Your task to perform on an android device: open app "Adobe Express: Graphic Design" (install if not already installed) and enter user name: "deliveries@gmail.com" and password: "regimentation" Image 0: 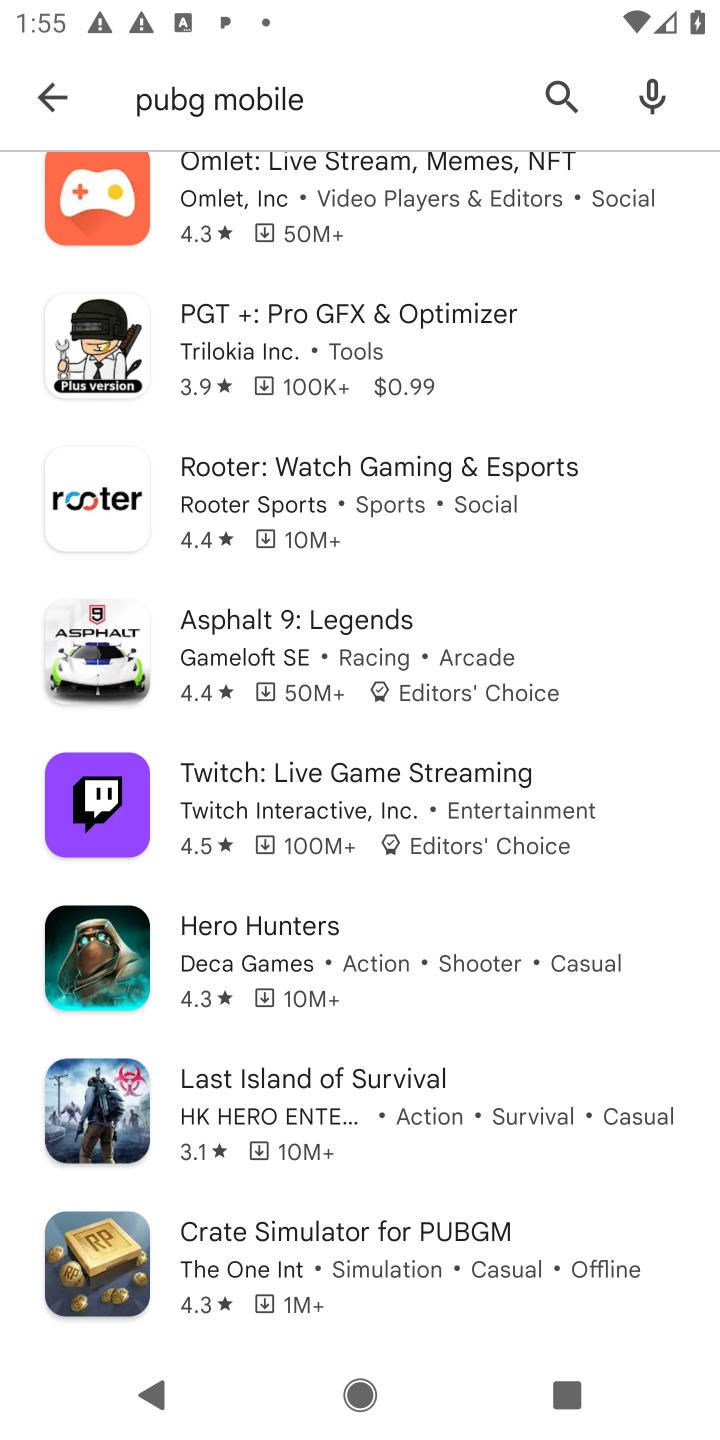
Step 0: press home button
Your task to perform on an android device: open app "Adobe Express: Graphic Design" (install if not already installed) and enter user name: "deliveries@gmail.com" and password: "regimentation" Image 1: 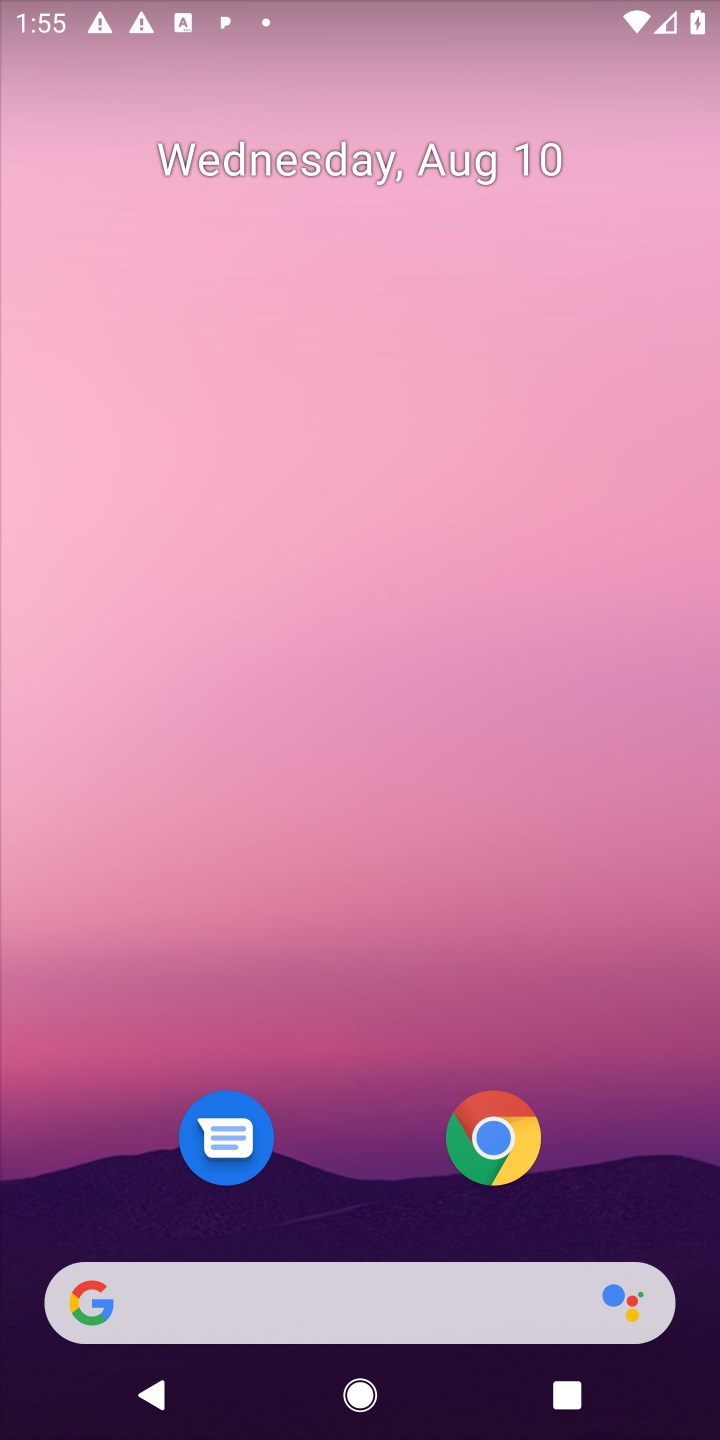
Step 1: drag from (628, 1084) to (655, 95)
Your task to perform on an android device: open app "Adobe Express: Graphic Design" (install if not already installed) and enter user name: "deliveries@gmail.com" and password: "regimentation" Image 2: 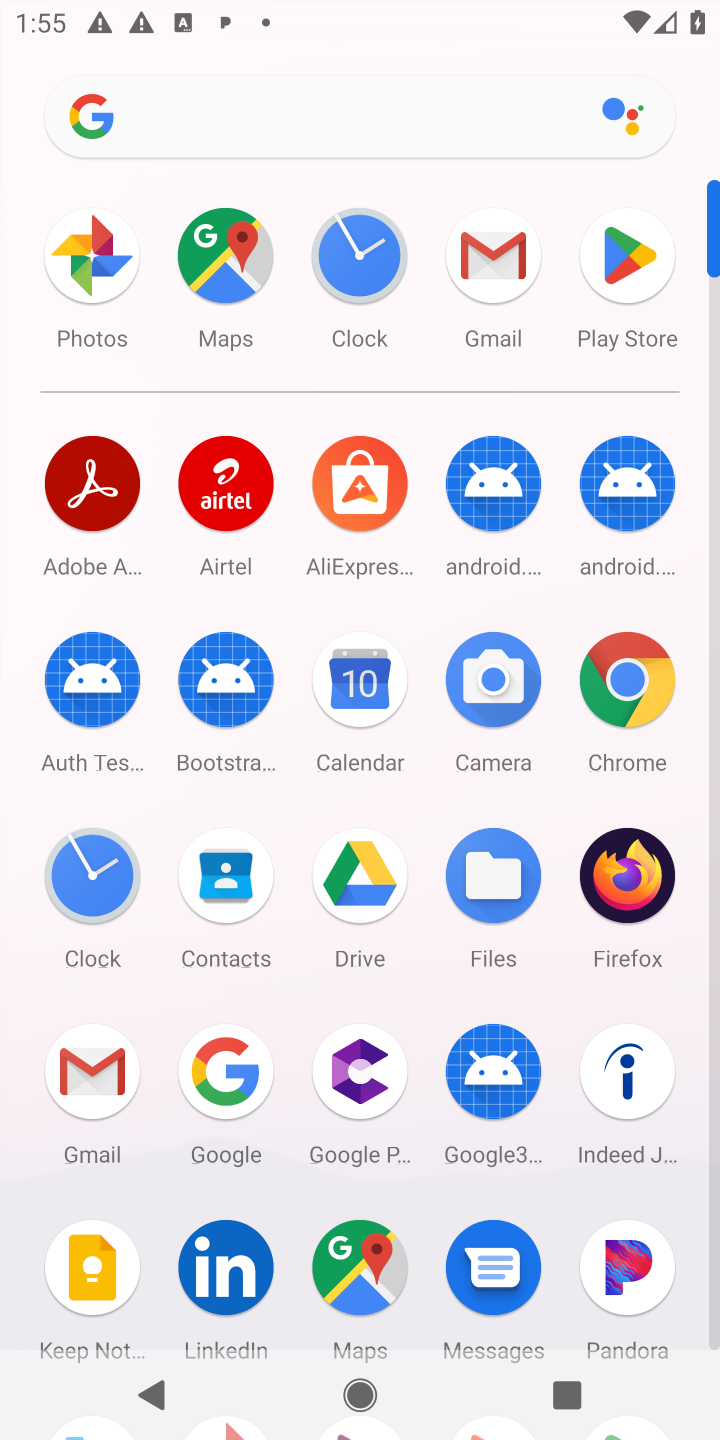
Step 2: click (608, 260)
Your task to perform on an android device: open app "Adobe Express: Graphic Design" (install if not already installed) and enter user name: "deliveries@gmail.com" and password: "regimentation" Image 3: 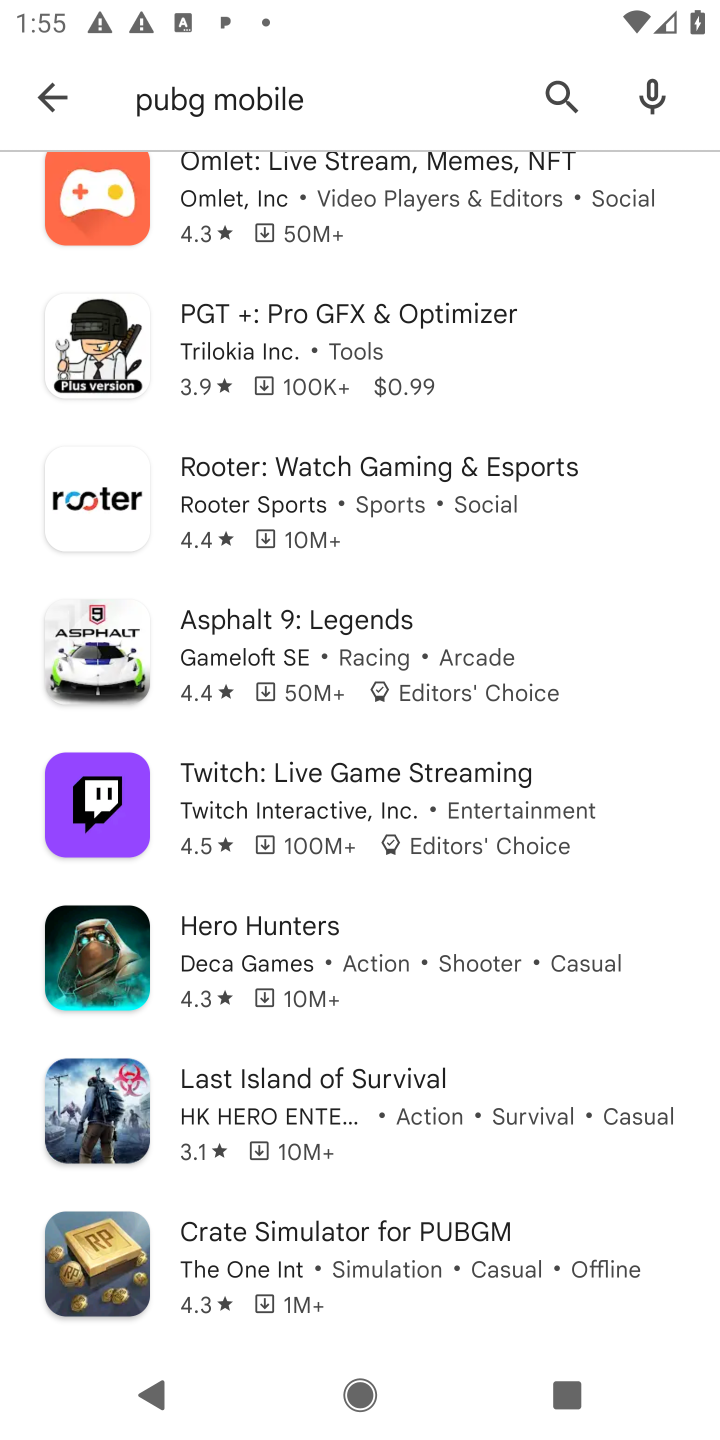
Step 3: click (555, 86)
Your task to perform on an android device: open app "Adobe Express: Graphic Design" (install if not already installed) and enter user name: "deliveries@gmail.com" and password: "regimentation" Image 4: 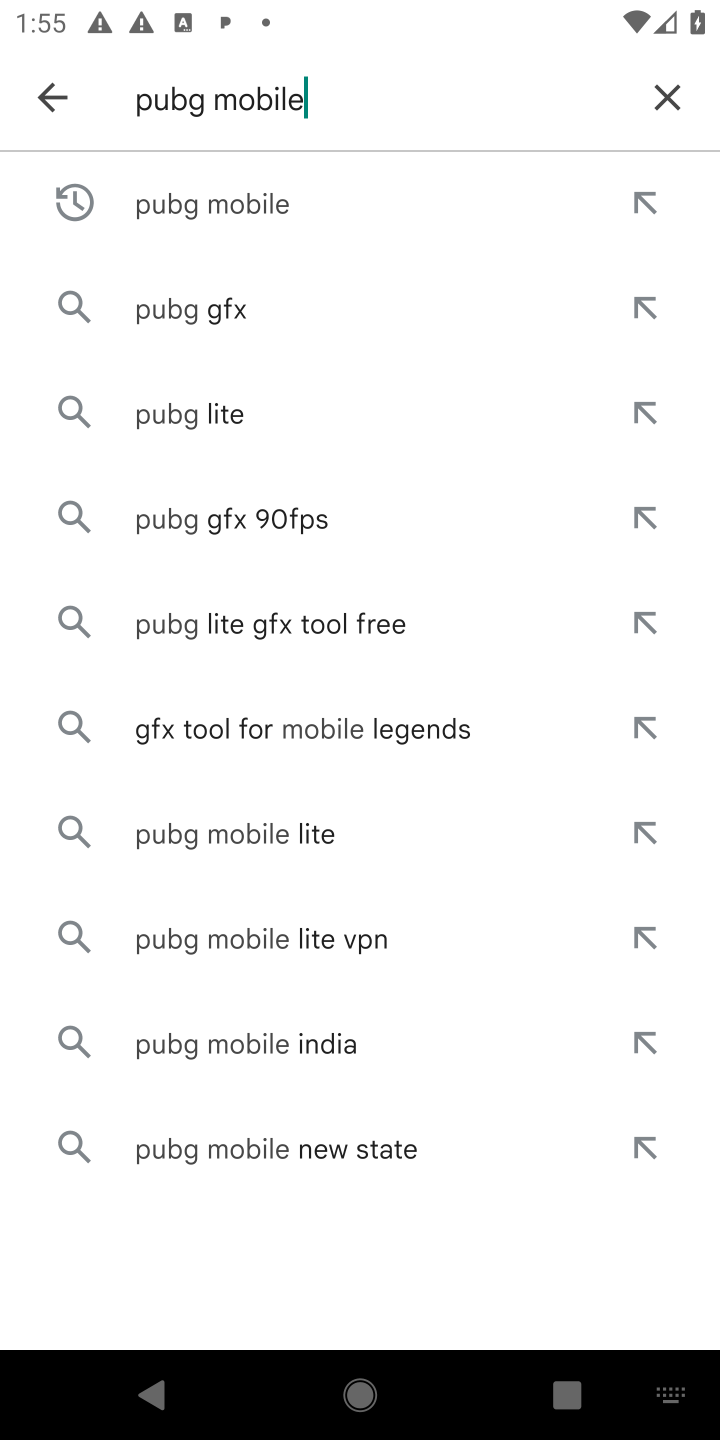
Step 4: click (676, 111)
Your task to perform on an android device: open app "Adobe Express: Graphic Design" (install if not already installed) and enter user name: "deliveries@gmail.com" and password: "regimentation" Image 5: 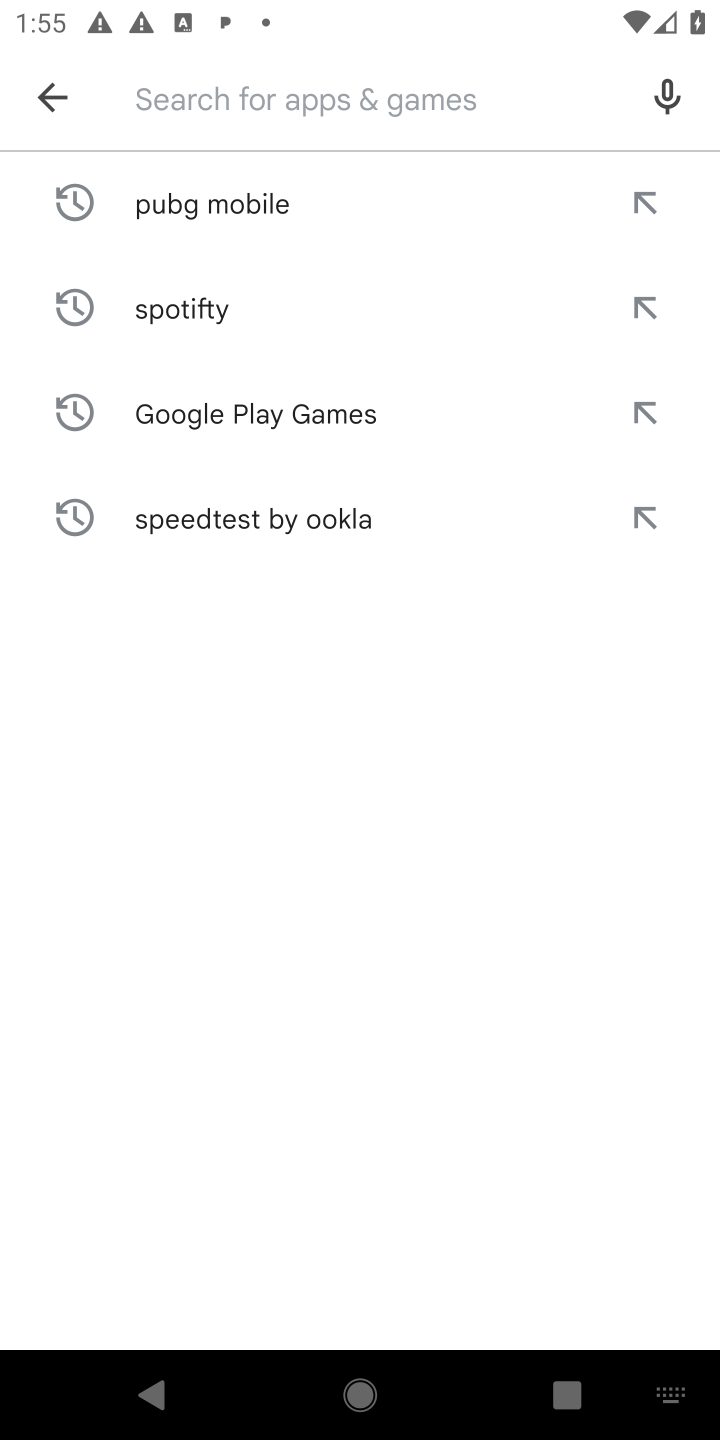
Step 5: press enter
Your task to perform on an android device: open app "Adobe Express: Graphic Design" (install if not already installed) and enter user name: "deliveries@gmail.com" and password: "regimentation" Image 6: 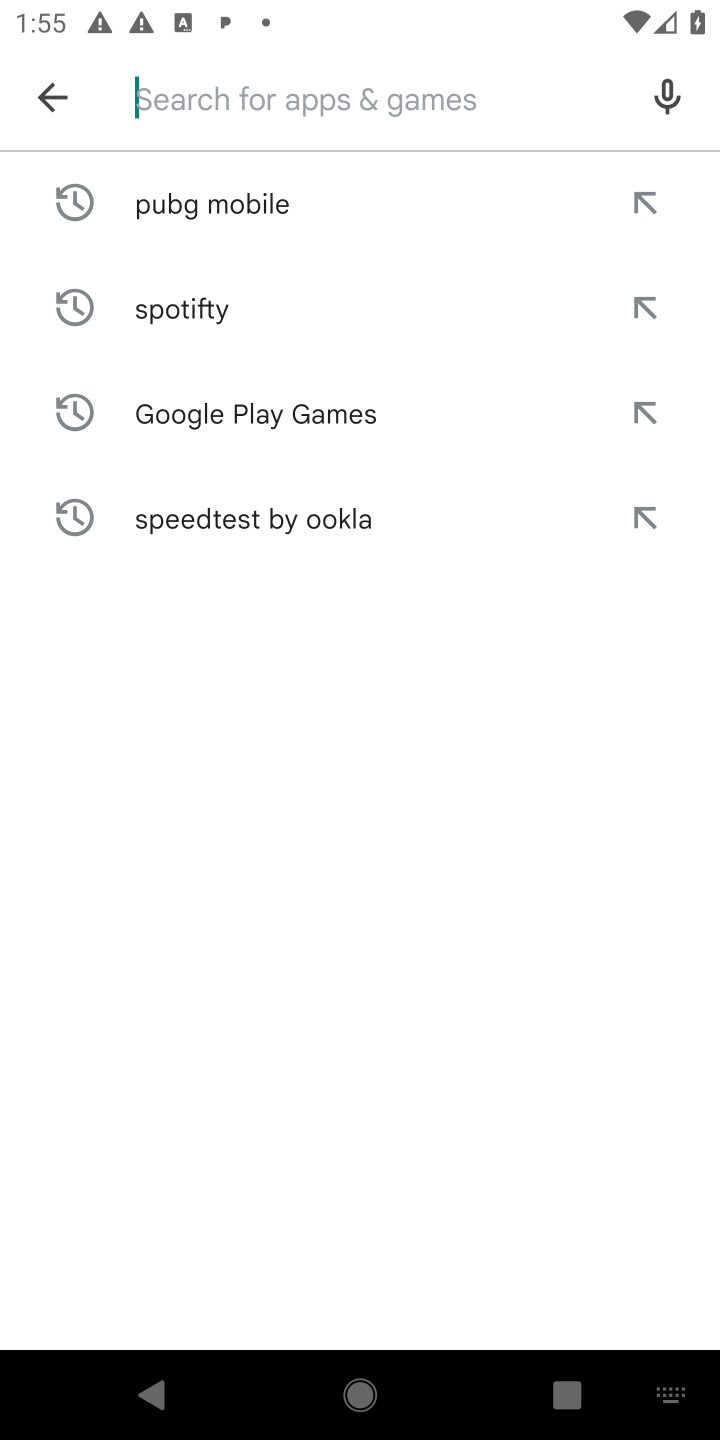
Step 6: type "Adobe Express: Graphic Design"
Your task to perform on an android device: open app "Adobe Express: Graphic Design" (install if not already installed) and enter user name: "deliveries@gmail.com" and password: "regimentation" Image 7: 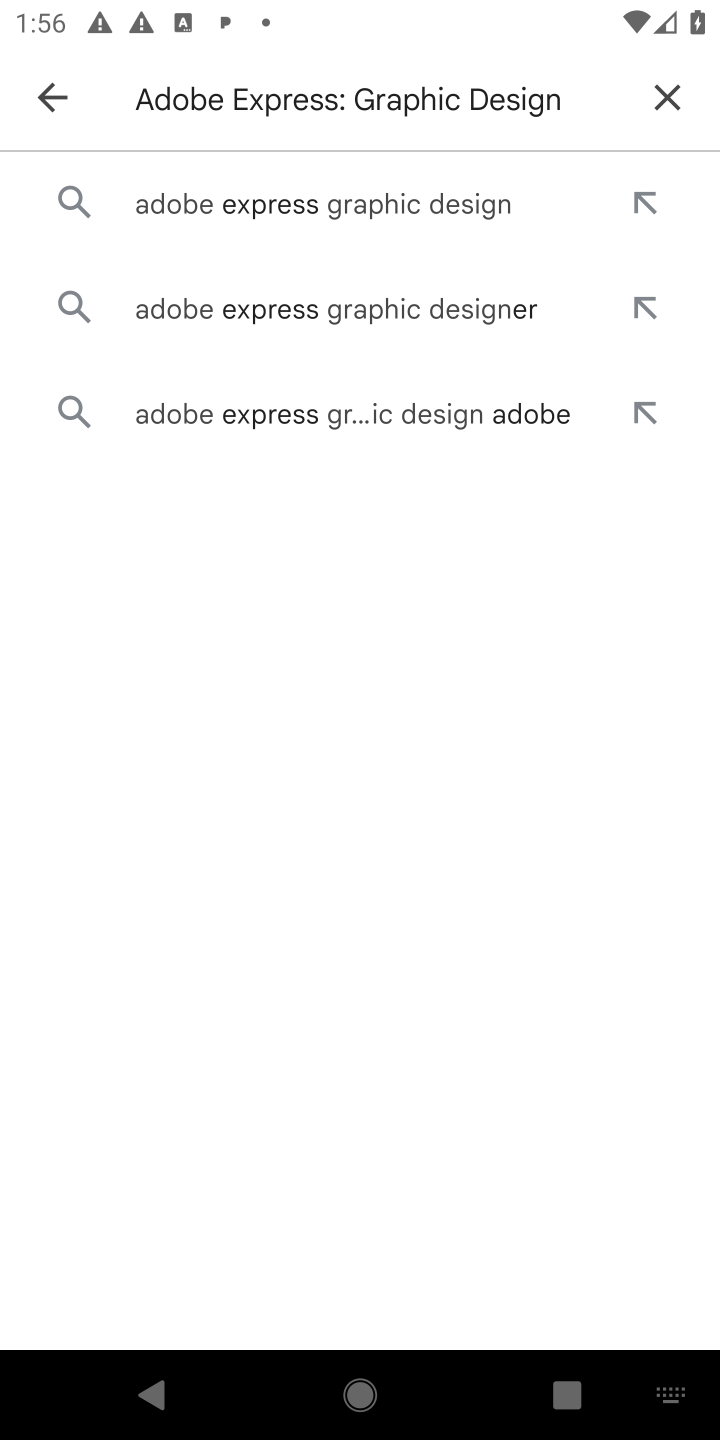
Step 7: click (414, 205)
Your task to perform on an android device: open app "Adobe Express: Graphic Design" (install if not already installed) and enter user name: "deliveries@gmail.com" and password: "regimentation" Image 8: 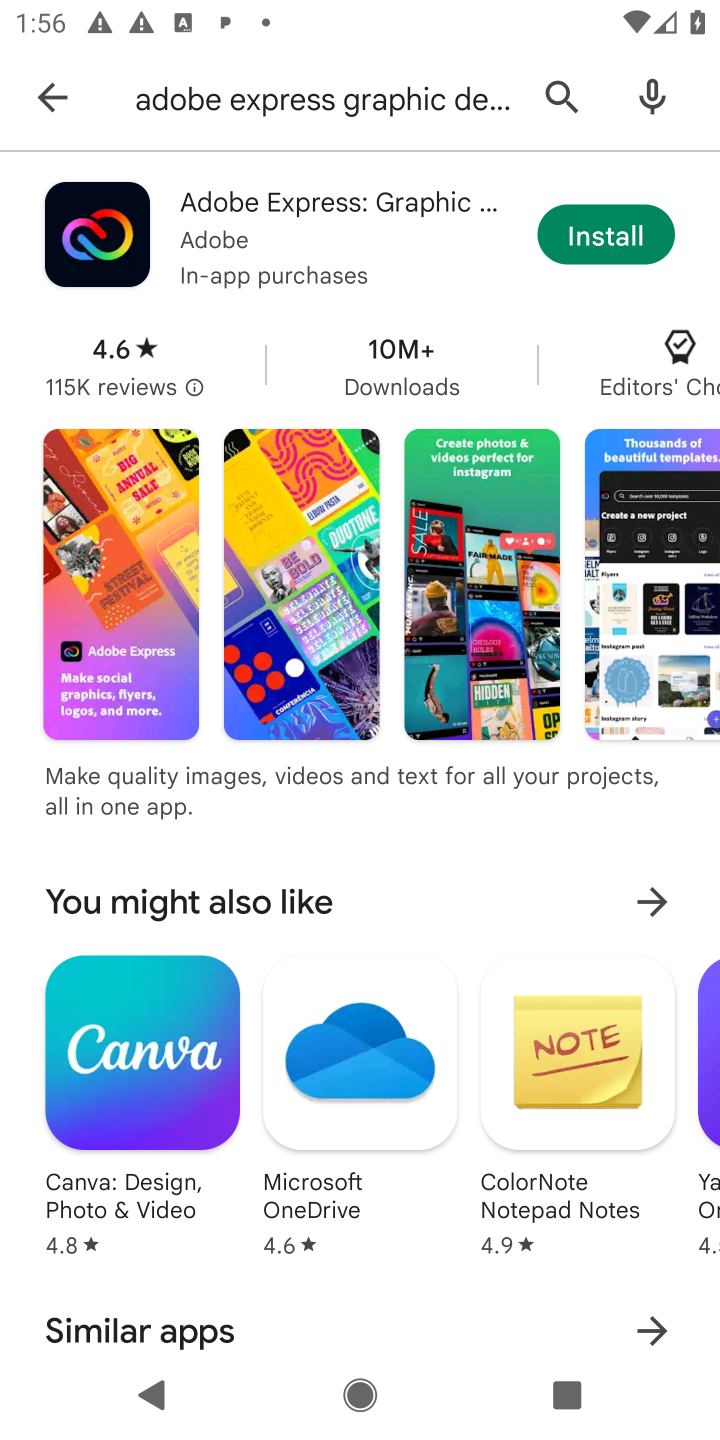
Step 8: click (619, 230)
Your task to perform on an android device: open app "Adobe Express: Graphic Design" (install if not already installed) and enter user name: "deliveries@gmail.com" and password: "regimentation" Image 9: 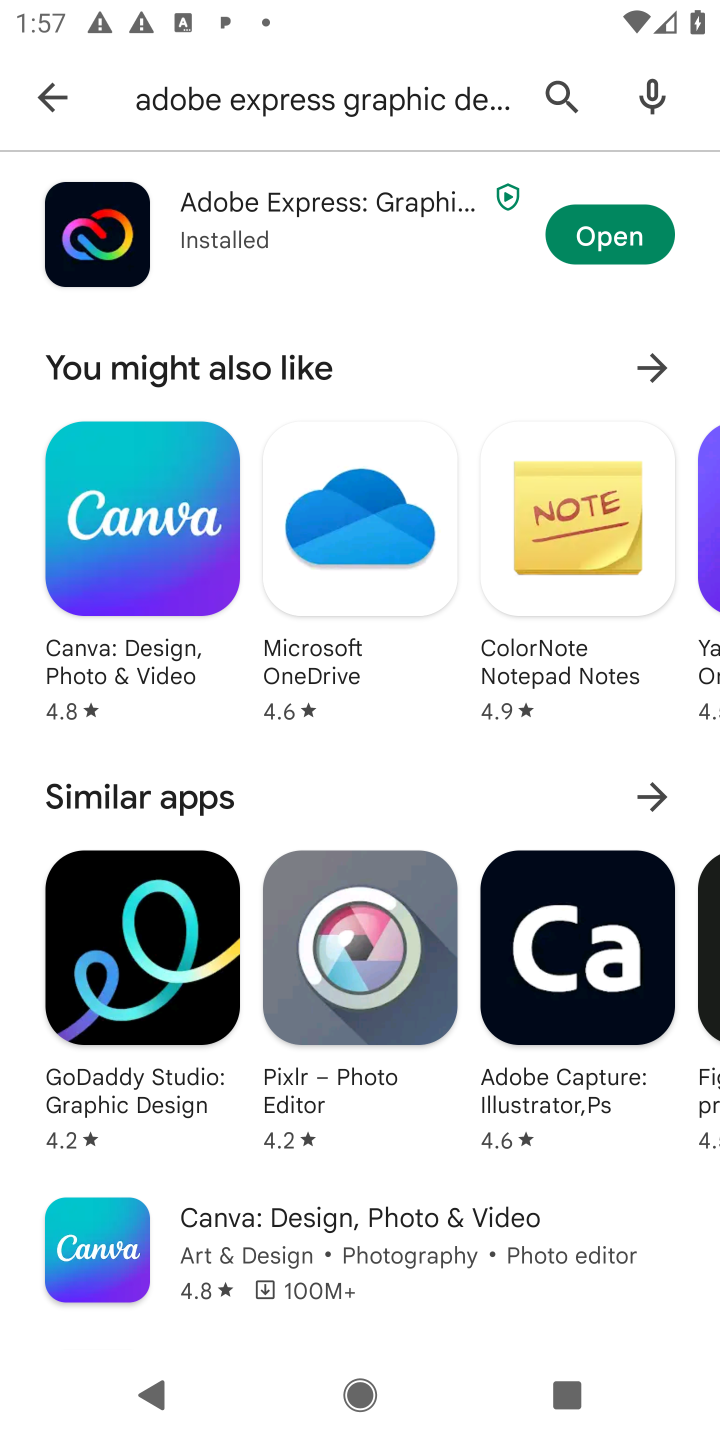
Step 9: click (626, 235)
Your task to perform on an android device: open app "Adobe Express: Graphic Design" (install if not already installed) and enter user name: "deliveries@gmail.com" and password: "regimentation" Image 10: 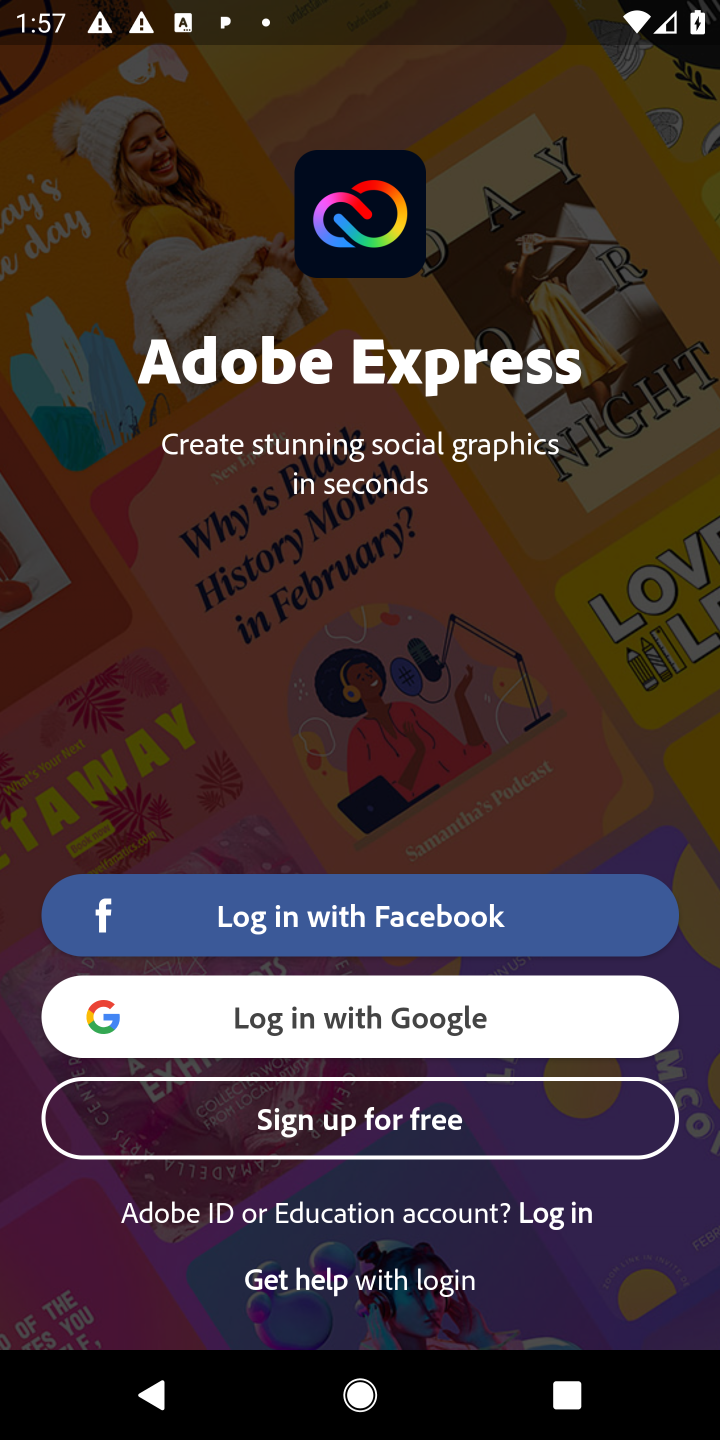
Step 10: click (566, 1217)
Your task to perform on an android device: open app "Adobe Express: Graphic Design" (install if not already installed) and enter user name: "deliveries@gmail.com" and password: "regimentation" Image 11: 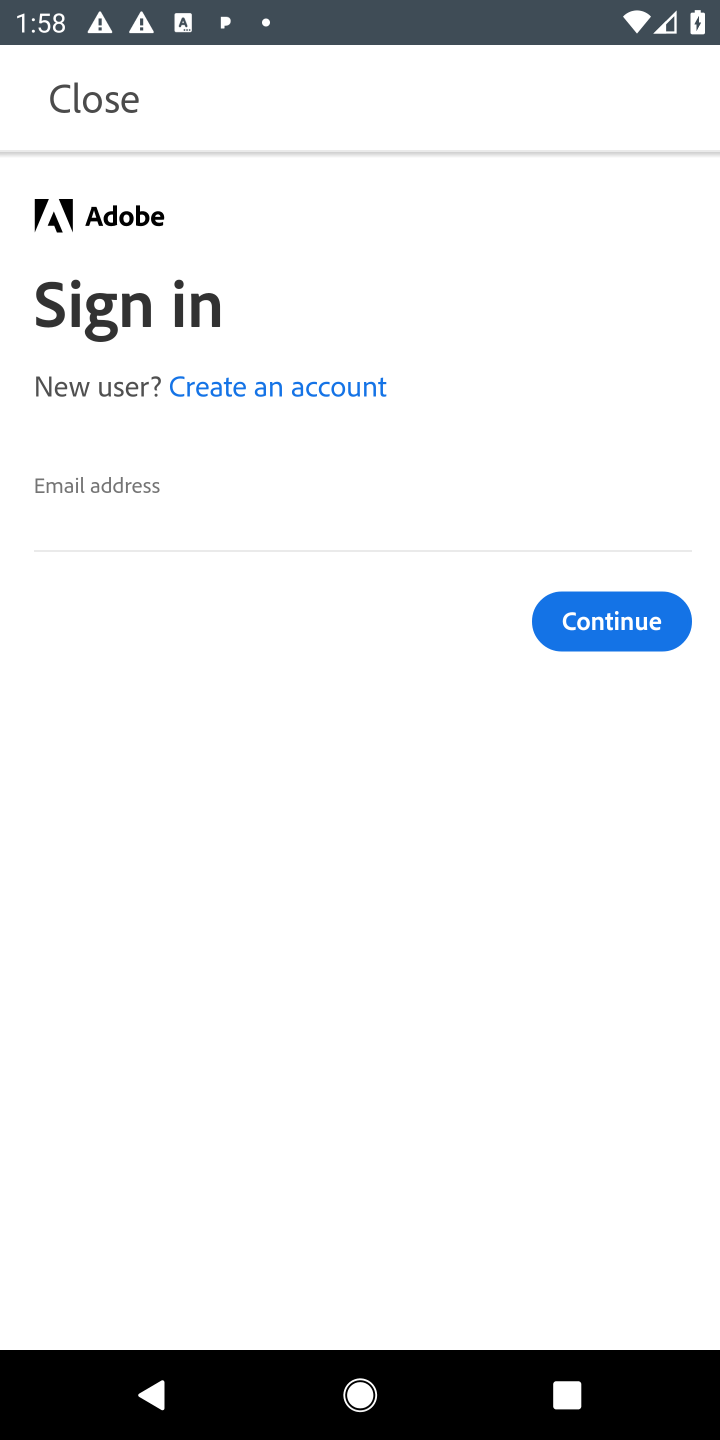
Step 11: click (194, 474)
Your task to perform on an android device: open app "Adobe Express: Graphic Design" (install if not already installed) and enter user name: "deliveries@gmail.com" and password: "regimentation" Image 12: 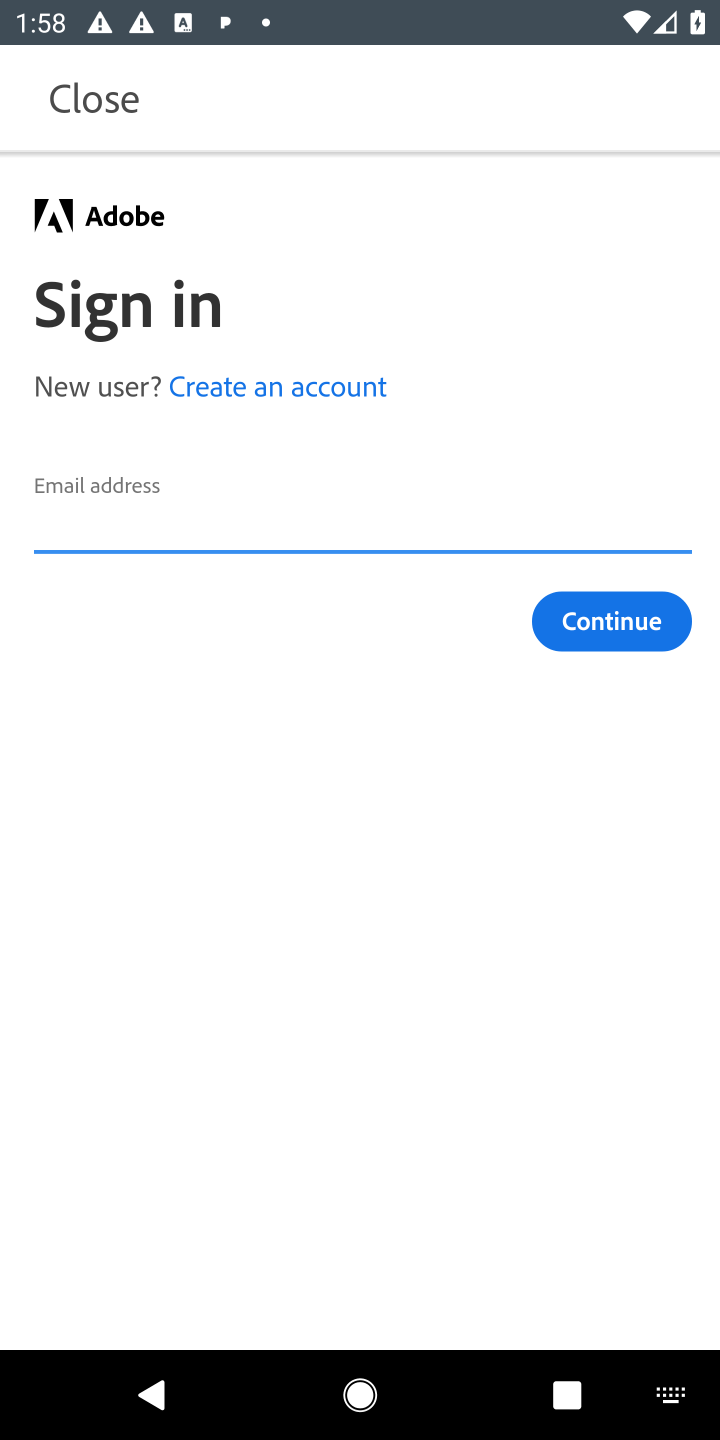
Step 12: type "deliveries@gmail.com"
Your task to perform on an android device: open app "Adobe Express: Graphic Design" (install if not already installed) and enter user name: "deliveries@gmail.com" and password: "regimentation" Image 13: 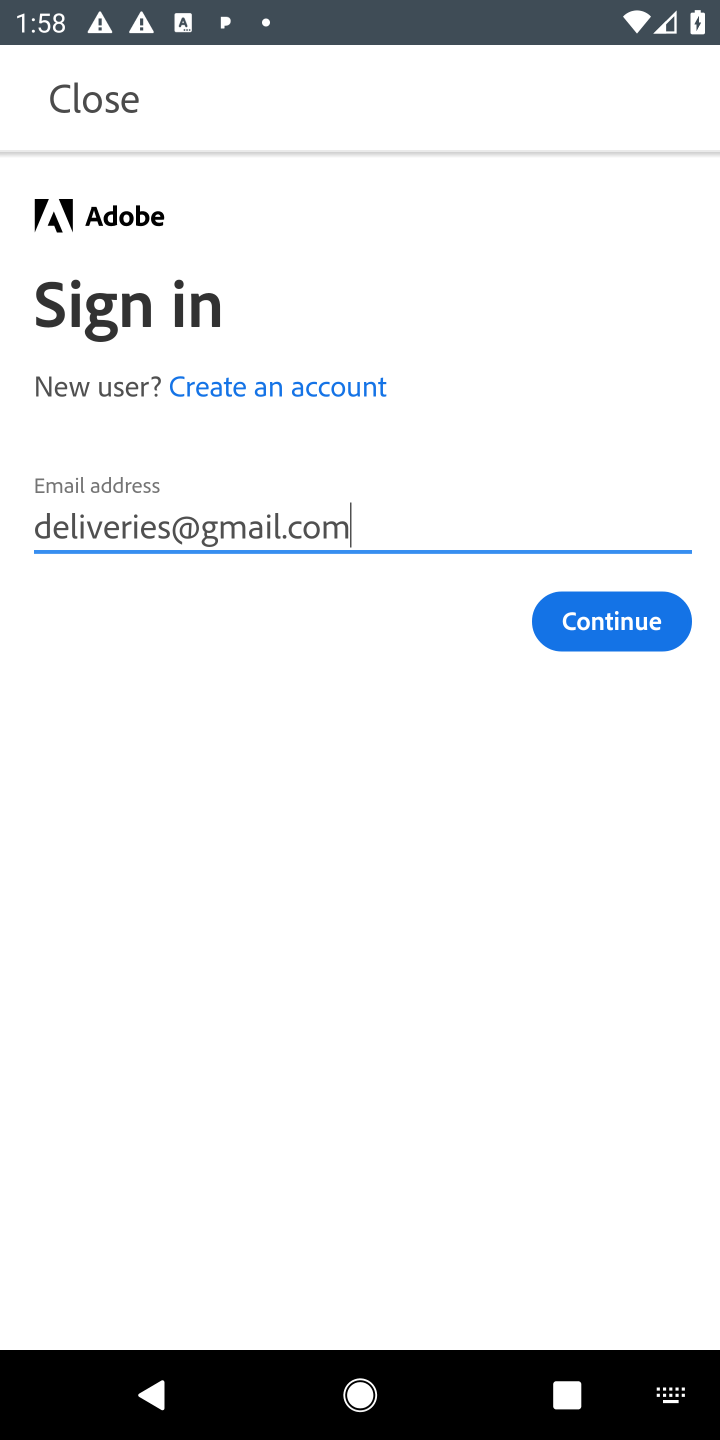
Step 13: drag from (630, 606) to (697, 599)
Your task to perform on an android device: open app "Adobe Express: Graphic Design" (install if not already installed) and enter user name: "deliveries@gmail.com" and password: "regimentation" Image 14: 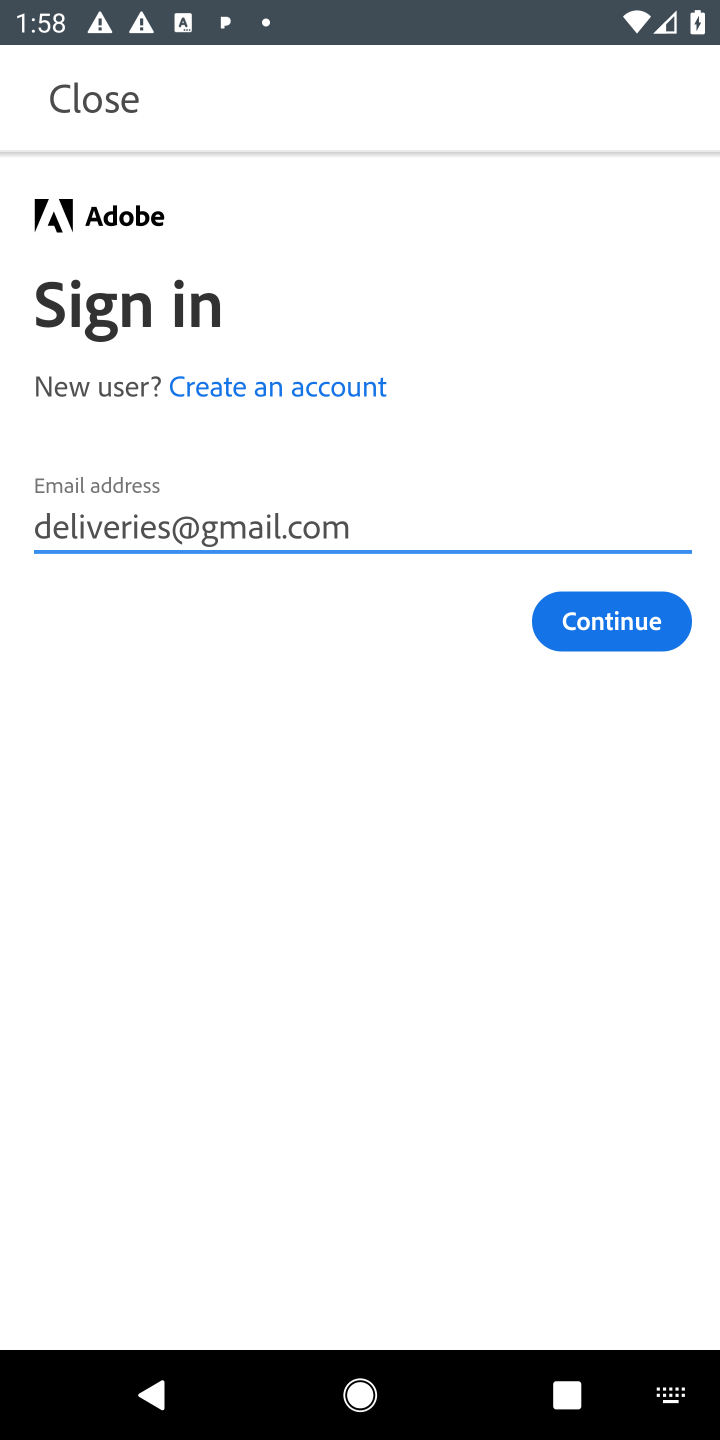
Step 14: click (636, 619)
Your task to perform on an android device: open app "Adobe Express: Graphic Design" (install if not already installed) and enter user name: "deliveries@gmail.com" and password: "regimentation" Image 15: 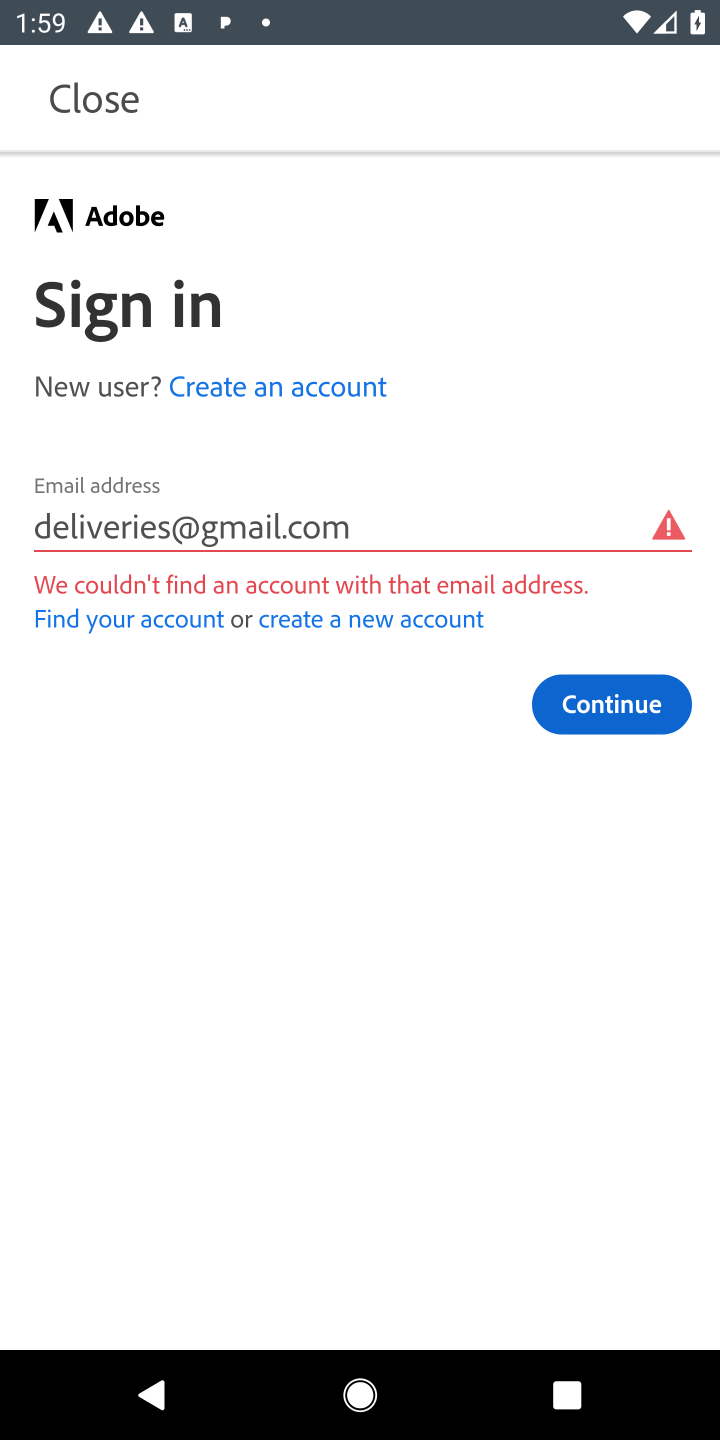
Step 15: task complete